Your task to perform on an android device: change the clock style Image 0: 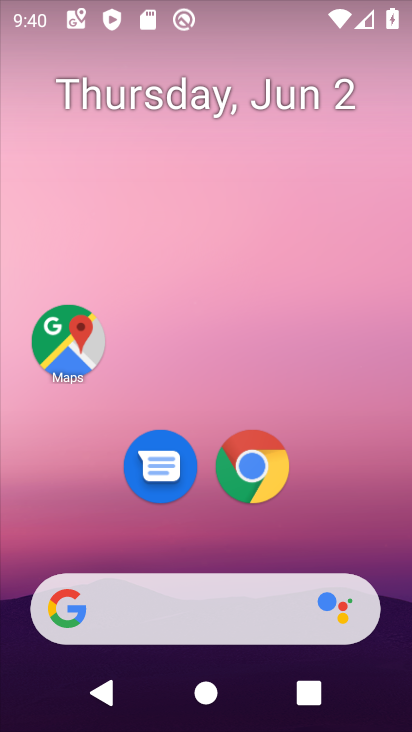
Step 0: drag from (205, 544) to (119, 19)
Your task to perform on an android device: change the clock style Image 1: 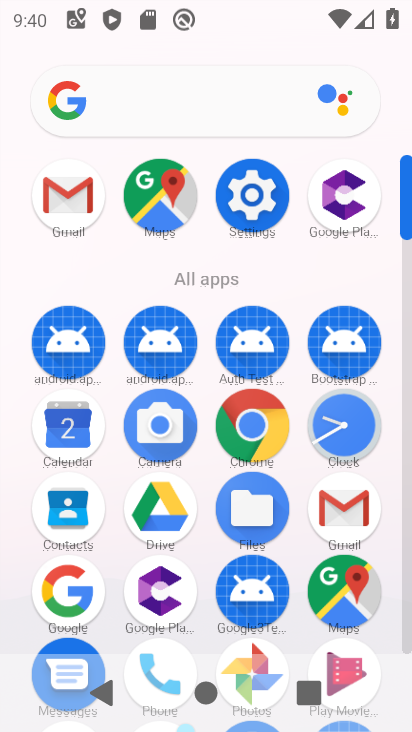
Step 1: click (349, 423)
Your task to perform on an android device: change the clock style Image 2: 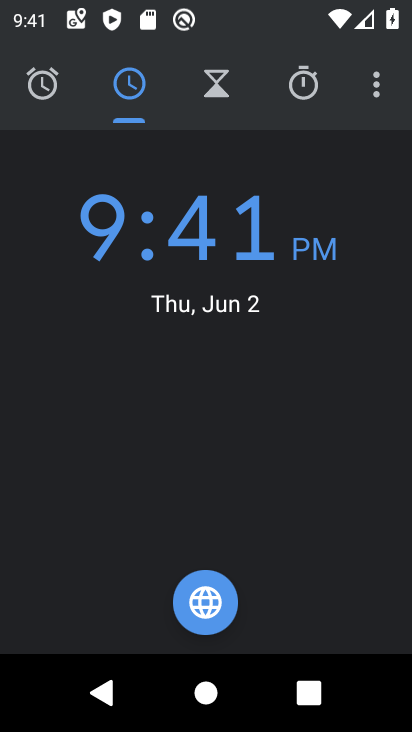
Step 2: click (372, 98)
Your task to perform on an android device: change the clock style Image 3: 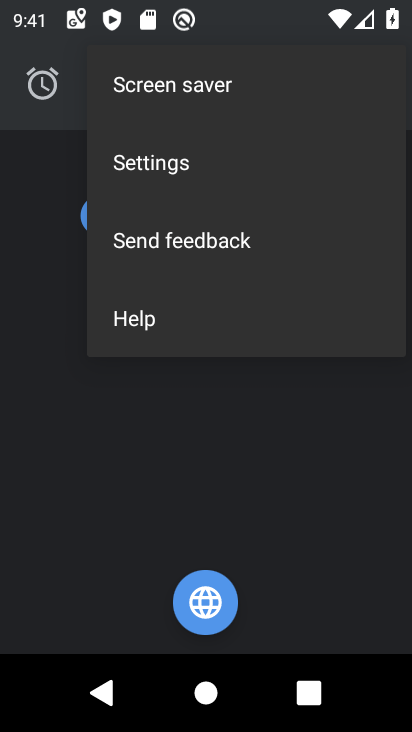
Step 3: click (159, 160)
Your task to perform on an android device: change the clock style Image 4: 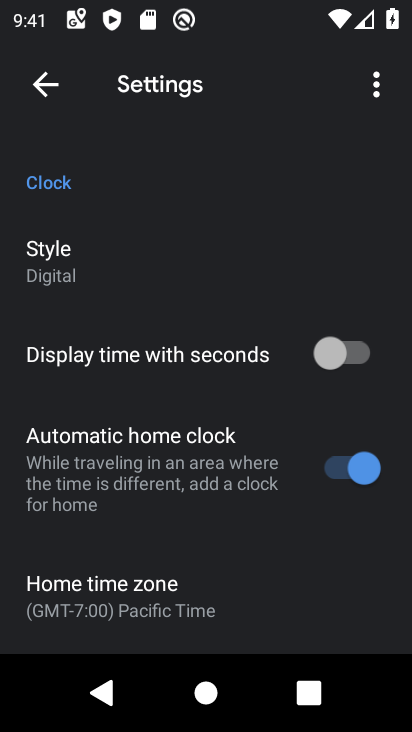
Step 4: click (69, 254)
Your task to perform on an android device: change the clock style Image 5: 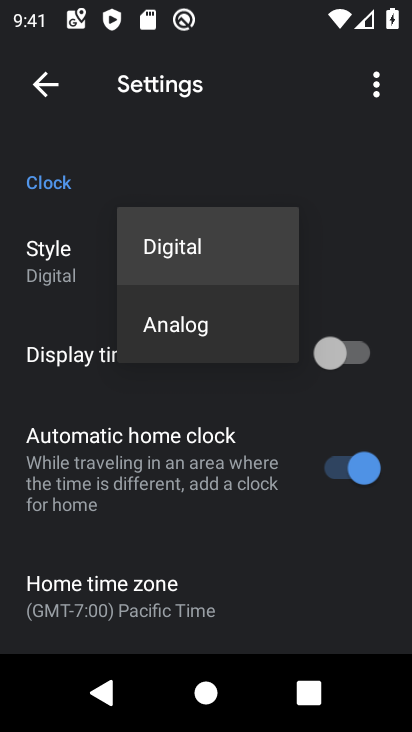
Step 5: click (207, 333)
Your task to perform on an android device: change the clock style Image 6: 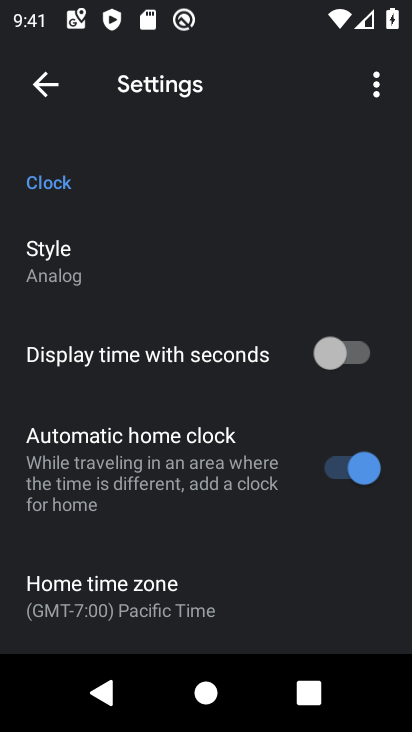
Step 6: task complete